Your task to perform on an android device: manage bookmarks in the chrome app Image 0: 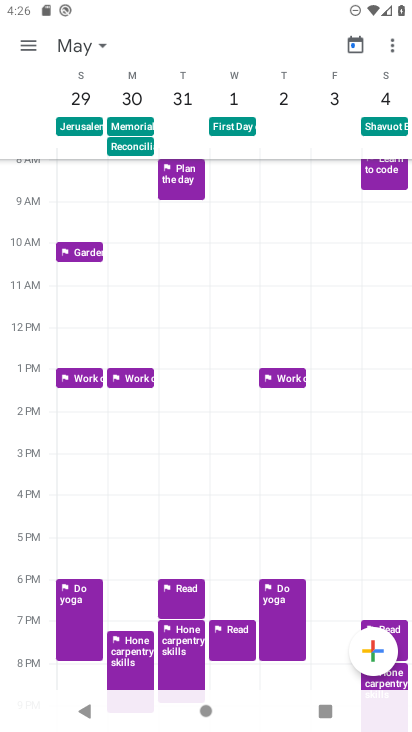
Step 0: press home button
Your task to perform on an android device: manage bookmarks in the chrome app Image 1: 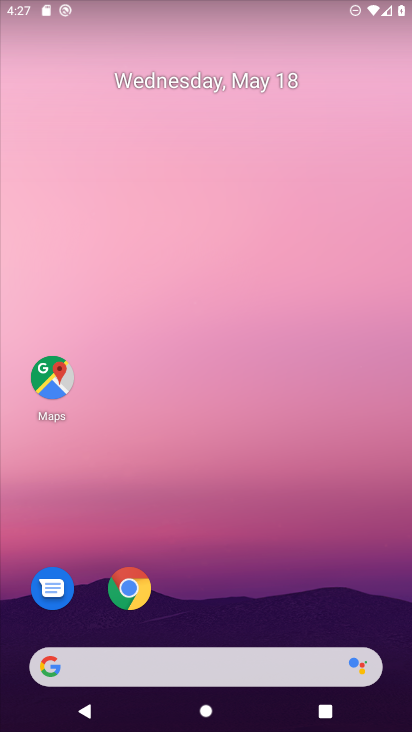
Step 1: click (124, 583)
Your task to perform on an android device: manage bookmarks in the chrome app Image 2: 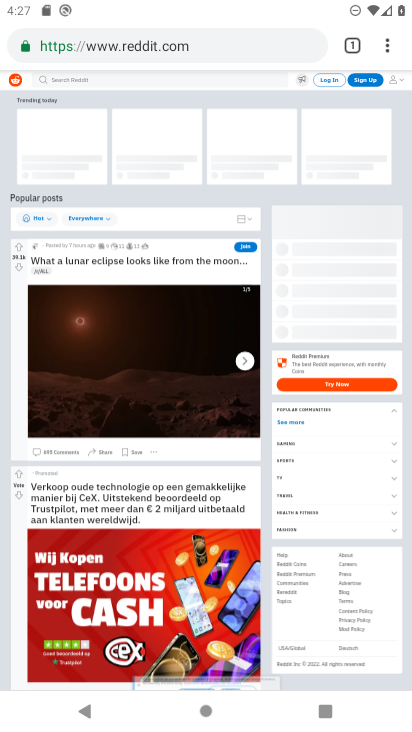
Step 2: click (380, 50)
Your task to perform on an android device: manage bookmarks in the chrome app Image 3: 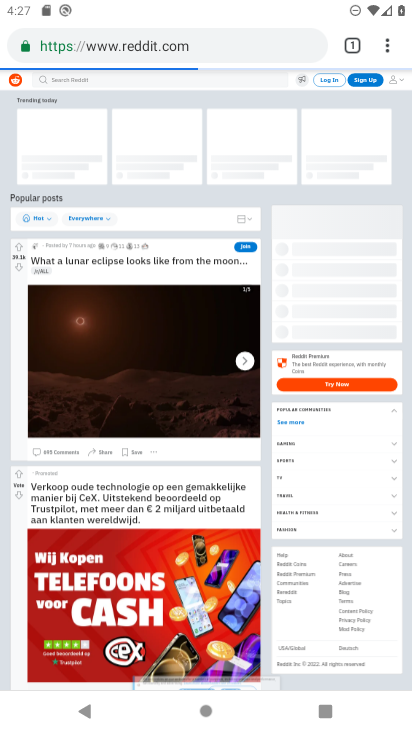
Step 3: click (392, 49)
Your task to perform on an android device: manage bookmarks in the chrome app Image 4: 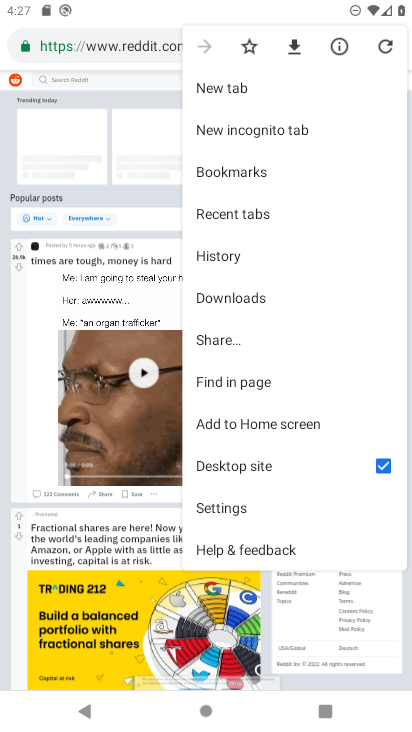
Step 4: click (248, 503)
Your task to perform on an android device: manage bookmarks in the chrome app Image 5: 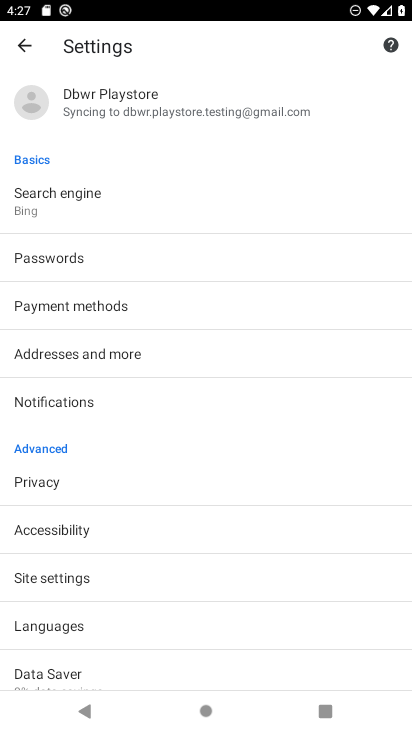
Step 5: click (12, 46)
Your task to perform on an android device: manage bookmarks in the chrome app Image 6: 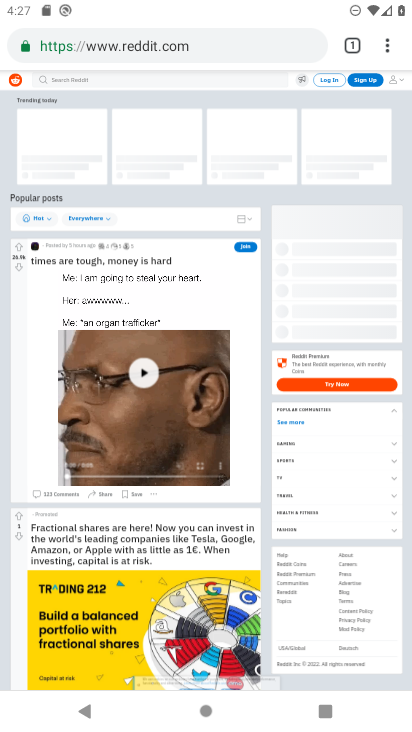
Step 6: click (382, 52)
Your task to perform on an android device: manage bookmarks in the chrome app Image 7: 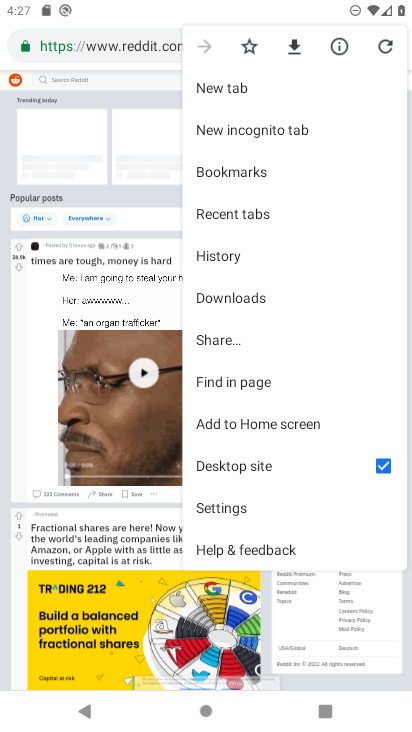
Step 7: click (275, 173)
Your task to perform on an android device: manage bookmarks in the chrome app Image 8: 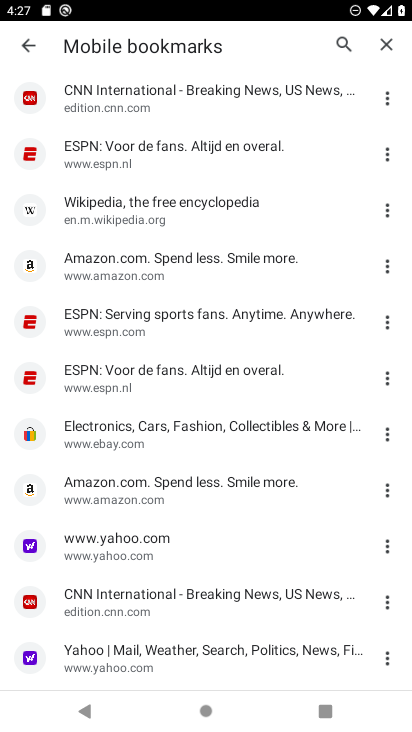
Step 8: drag from (264, 140) to (255, 618)
Your task to perform on an android device: manage bookmarks in the chrome app Image 9: 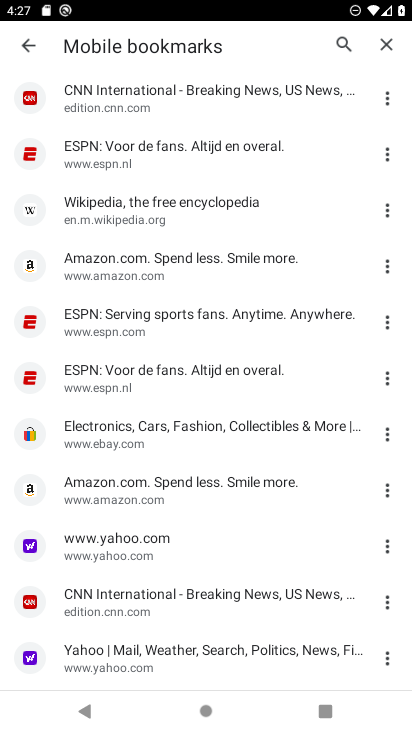
Step 9: click (232, 90)
Your task to perform on an android device: manage bookmarks in the chrome app Image 10: 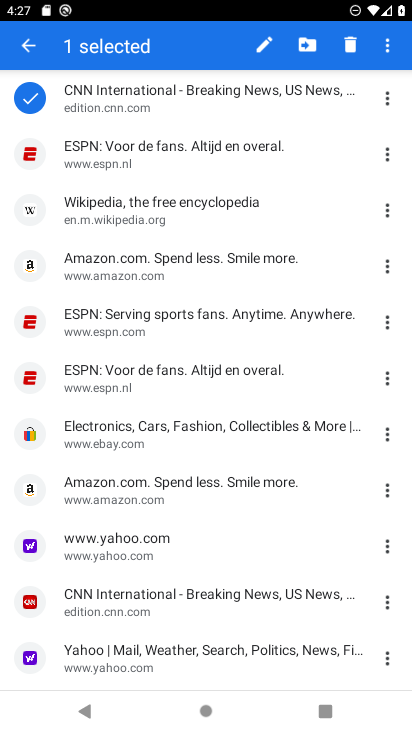
Step 10: task complete